Your task to perform on an android device: What is the recent news? Image 0: 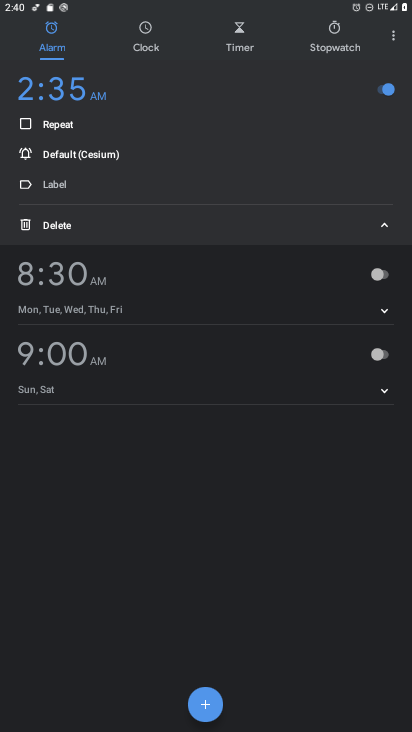
Step 0: press home button
Your task to perform on an android device: What is the recent news? Image 1: 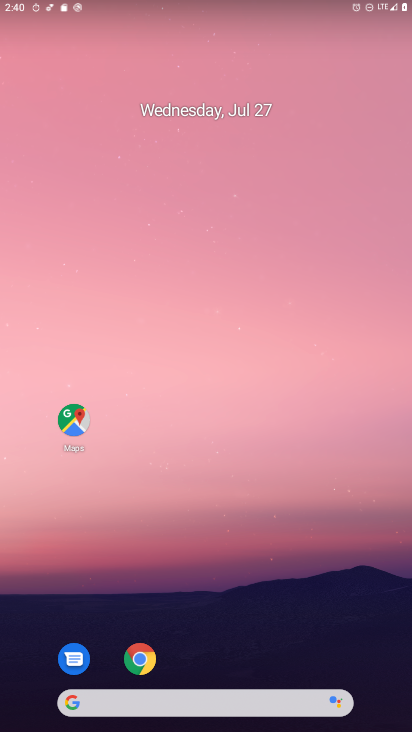
Step 1: drag from (219, 314) to (225, 74)
Your task to perform on an android device: What is the recent news? Image 2: 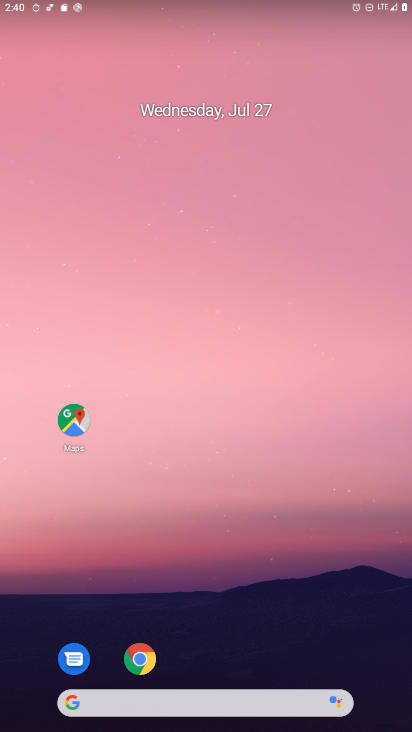
Step 2: drag from (342, 627) to (274, 72)
Your task to perform on an android device: What is the recent news? Image 3: 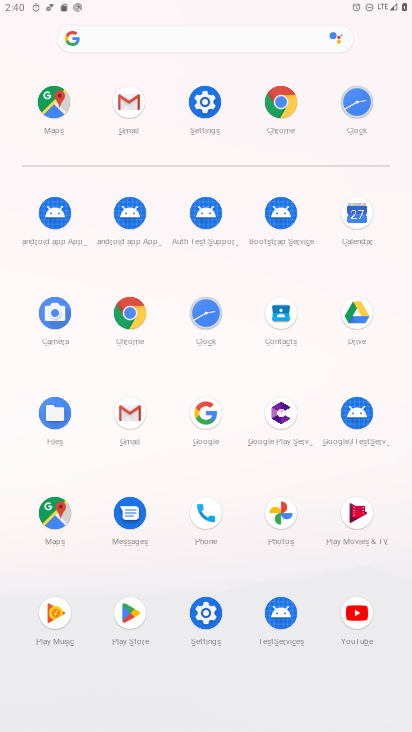
Step 3: click (291, 103)
Your task to perform on an android device: What is the recent news? Image 4: 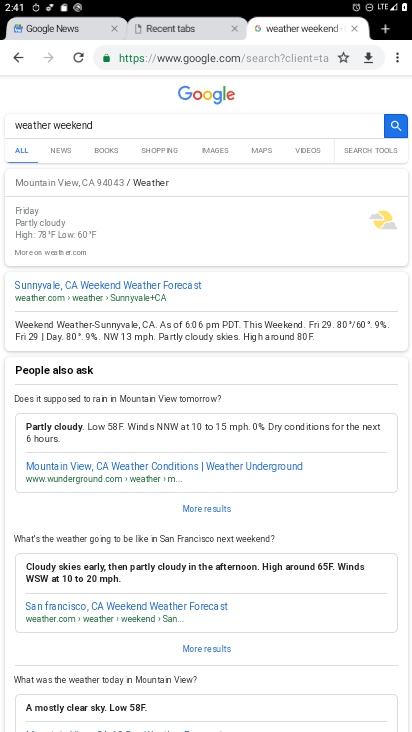
Step 4: click (242, 52)
Your task to perform on an android device: What is the recent news? Image 5: 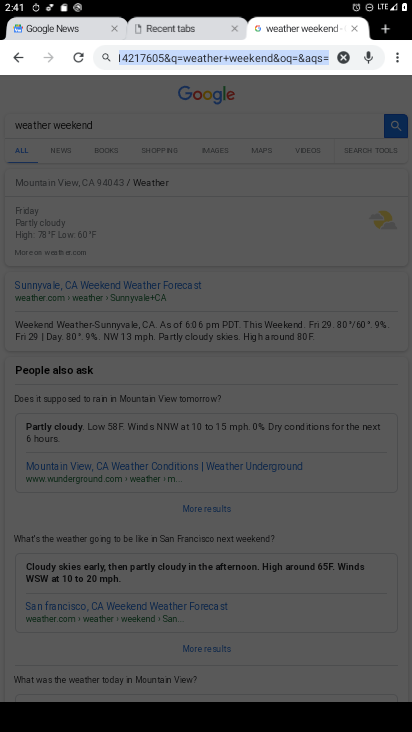
Step 5: type "news"
Your task to perform on an android device: What is the recent news? Image 6: 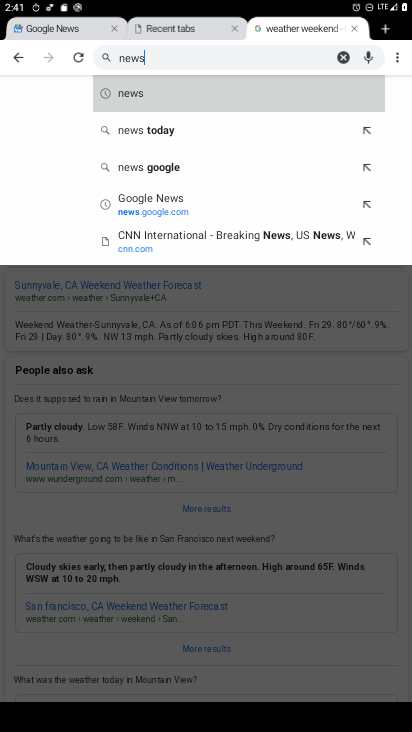
Step 6: click (136, 90)
Your task to perform on an android device: What is the recent news? Image 7: 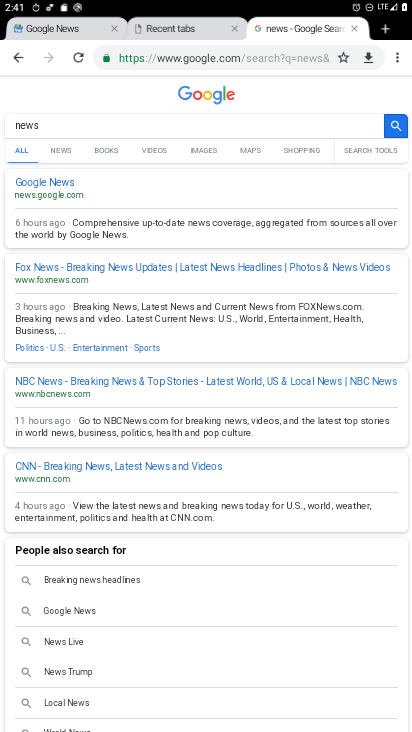
Step 7: click (53, 174)
Your task to perform on an android device: What is the recent news? Image 8: 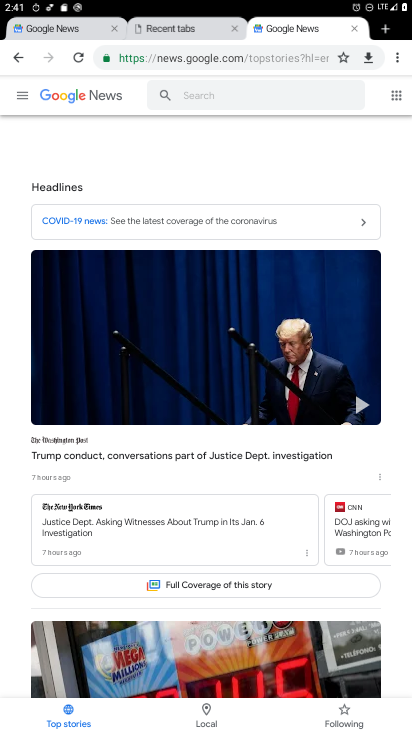
Step 8: task complete